Your task to perform on an android device: turn off sleep mode Image 0: 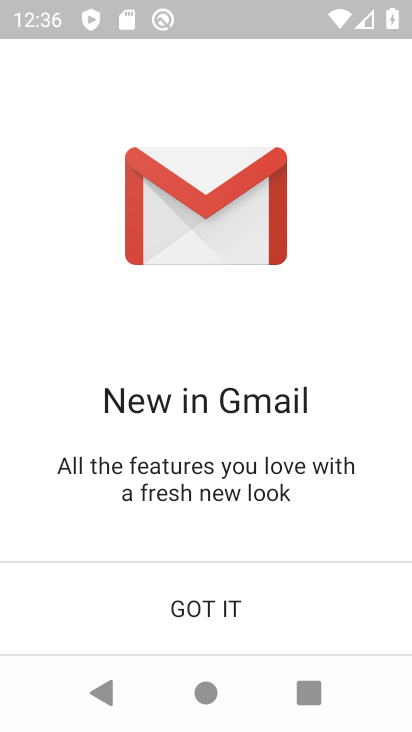
Step 0: press home button
Your task to perform on an android device: turn off sleep mode Image 1: 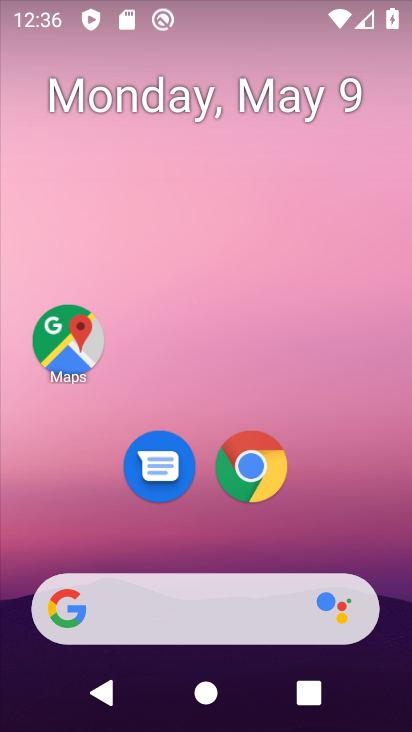
Step 1: drag from (256, 576) to (241, 171)
Your task to perform on an android device: turn off sleep mode Image 2: 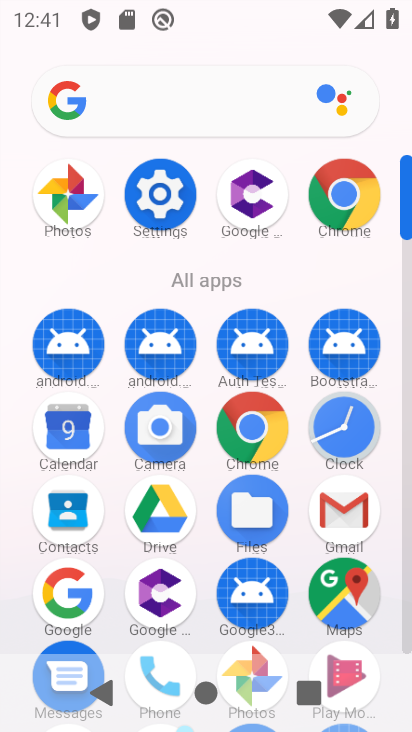
Step 2: click (155, 185)
Your task to perform on an android device: turn off sleep mode Image 3: 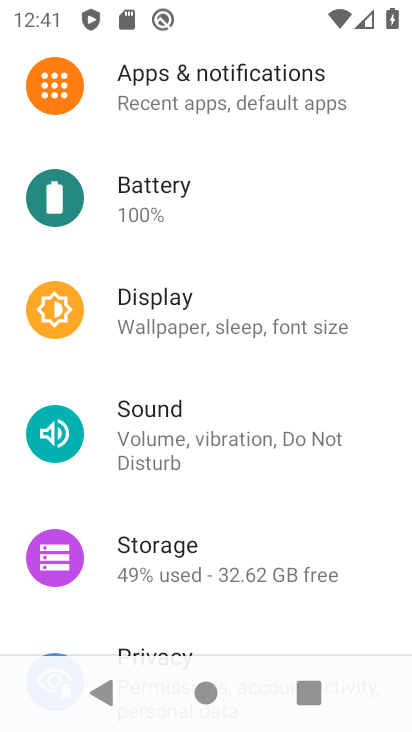
Step 3: click (160, 313)
Your task to perform on an android device: turn off sleep mode Image 4: 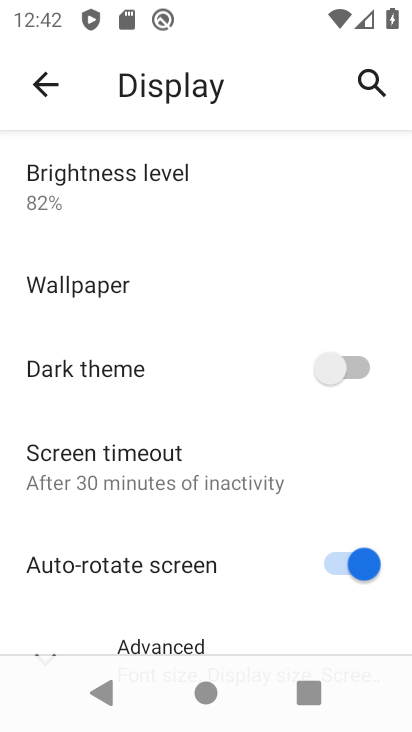
Step 4: drag from (218, 445) to (231, 222)
Your task to perform on an android device: turn off sleep mode Image 5: 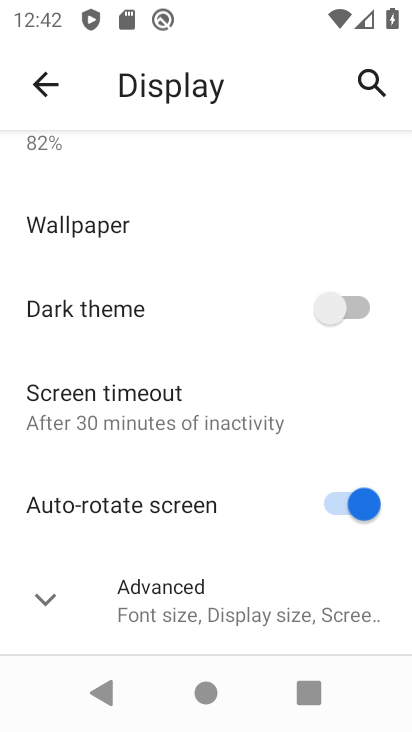
Step 5: click (224, 587)
Your task to perform on an android device: turn off sleep mode Image 6: 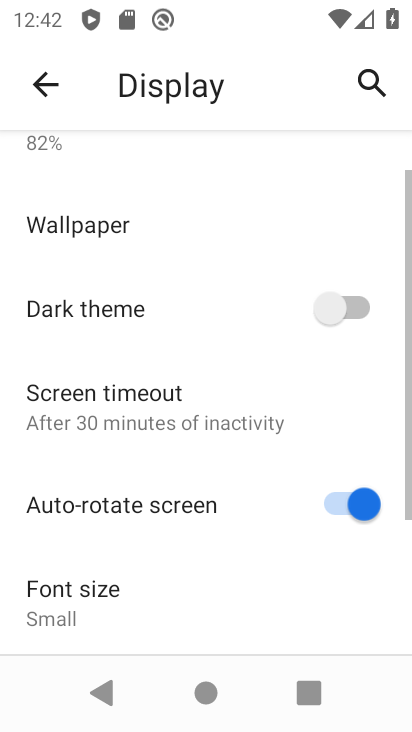
Step 6: task complete